Your task to perform on an android device: turn vacation reply on in the gmail app Image 0: 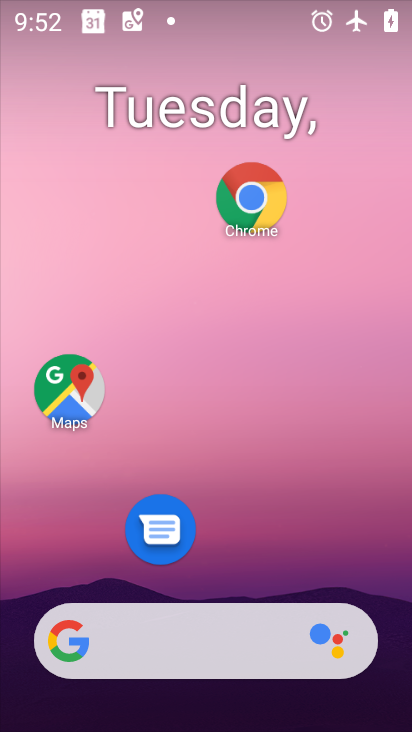
Step 0: drag from (351, 559) to (355, 184)
Your task to perform on an android device: turn vacation reply on in the gmail app Image 1: 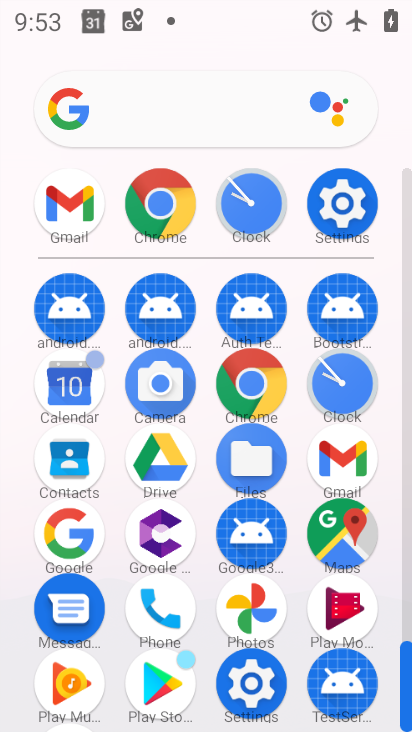
Step 1: click (79, 216)
Your task to perform on an android device: turn vacation reply on in the gmail app Image 2: 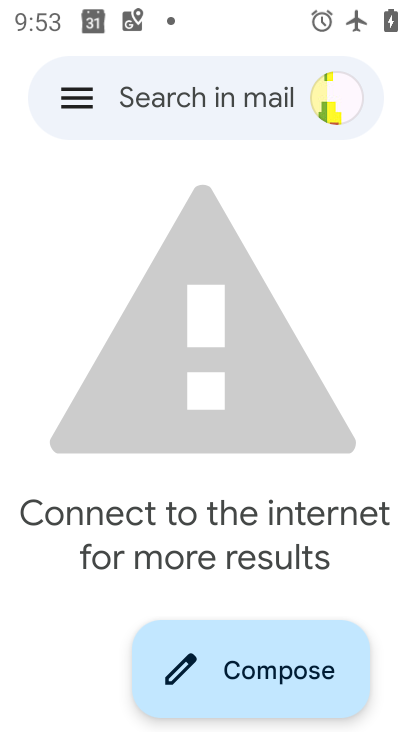
Step 2: click (72, 123)
Your task to perform on an android device: turn vacation reply on in the gmail app Image 3: 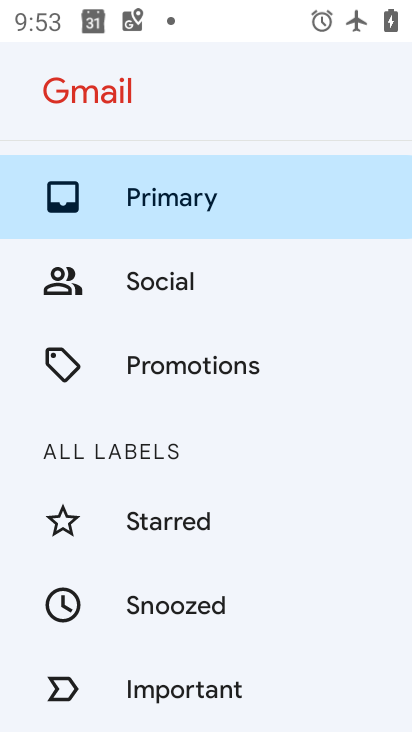
Step 3: drag from (221, 643) to (228, 255)
Your task to perform on an android device: turn vacation reply on in the gmail app Image 4: 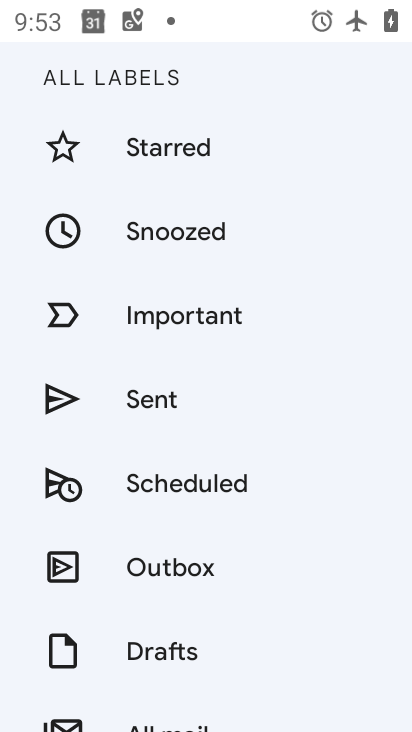
Step 4: drag from (229, 632) to (232, 280)
Your task to perform on an android device: turn vacation reply on in the gmail app Image 5: 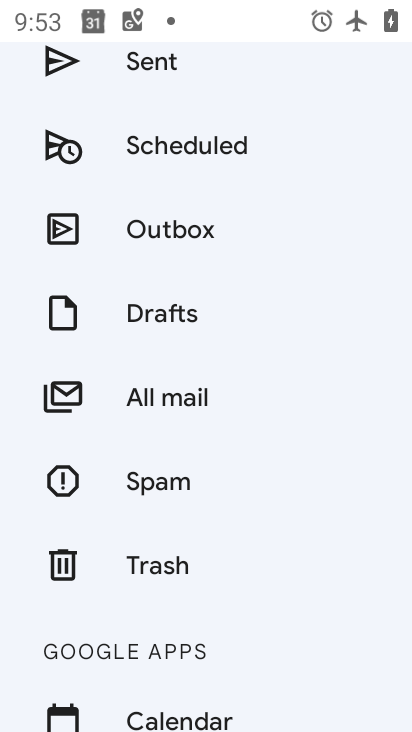
Step 5: drag from (170, 668) to (181, 482)
Your task to perform on an android device: turn vacation reply on in the gmail app Image 6: 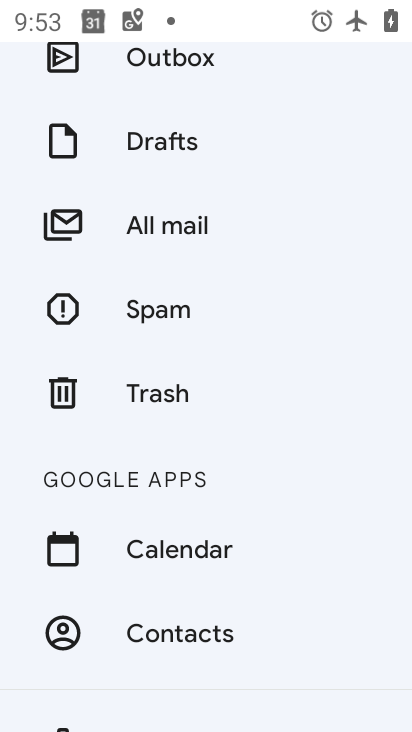
Step 6: drag from (174, 651) to (216, 159)
Your task to perform on an android device: turn vacation reply on in the gmail app Image 7: 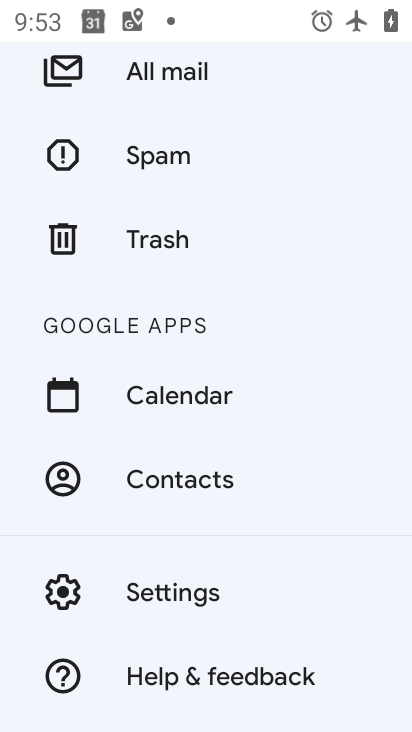
Step 7: click (234, 574)
Your task to perform on an android device: turn vacation reply on in the gmail app Image 8: 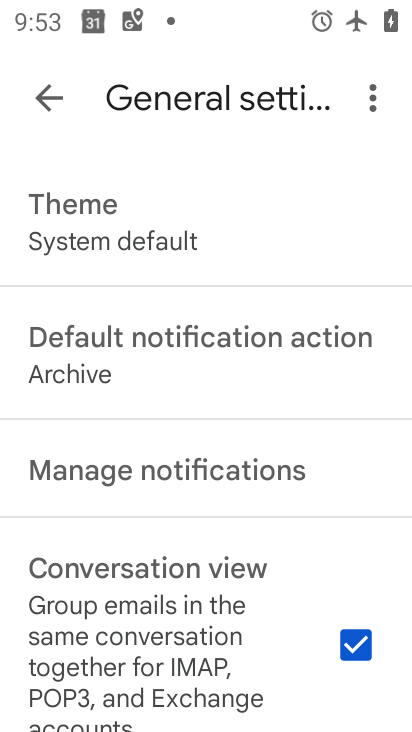
Step 8: task complete